Your task to perform on an android device: make emails show in primary in the gmail app Image 0: 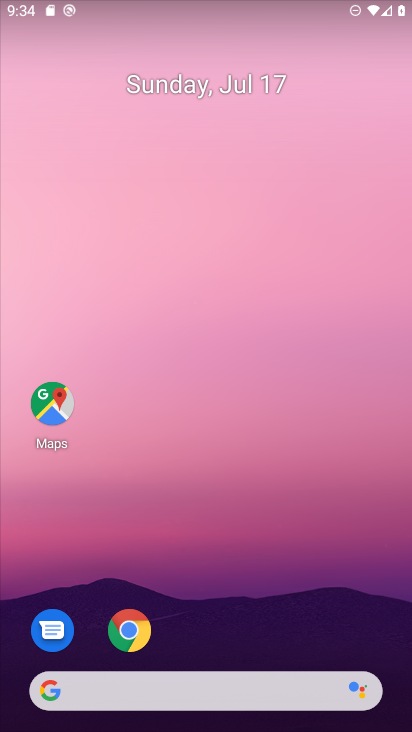
Step 0: drag from (194, 668) to (255, 7)
Your task to perform on an android device: make emails show in primary in the gmail app Image 1: 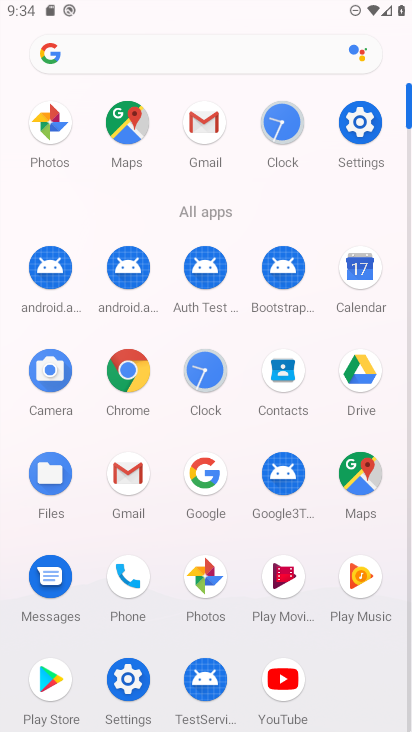
Step 1: click (118, 489)
Your task to perform on an android device: make emails show in primary in the gmail app Image 2: 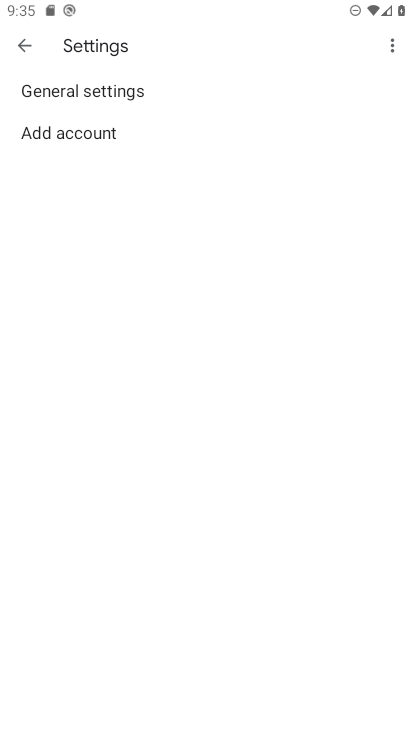
Step 2: click (43, 99)
Your task to perform on an android device: make emails show in primary in the gmail app Image 3: 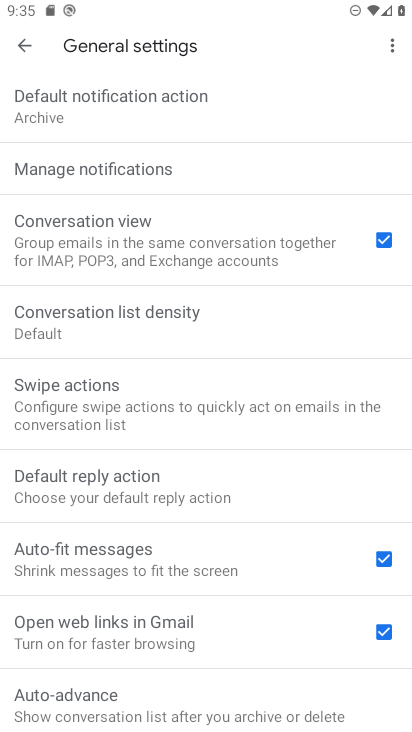
Step 3: click (162, 170)
Your task to perform on an android device: make emails show in primary in the gmail app Image 4: 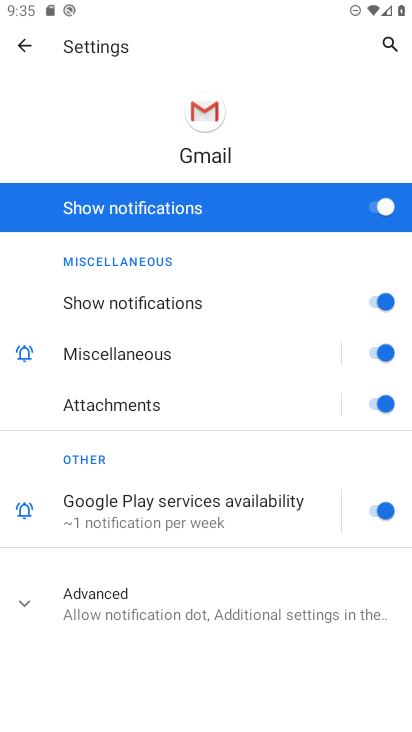
Step 4: click (24, 50)
Your task to perform on an android device: make emails show in primary in the gmail app Image 5: 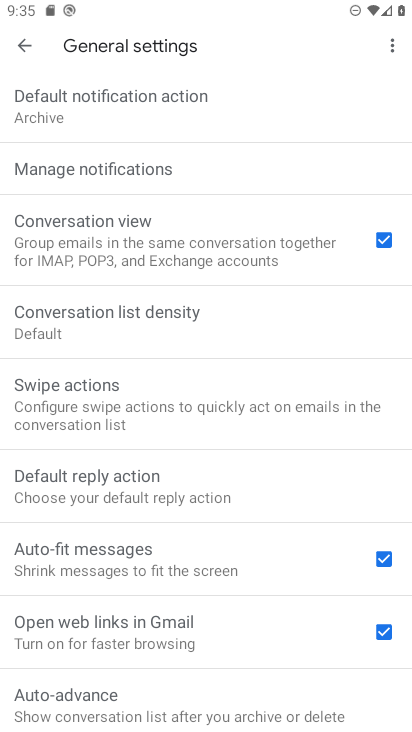
Step 5: click (11, 43)
Your task to perform on an android device: make emails show in primary in the gmail app Image 6: 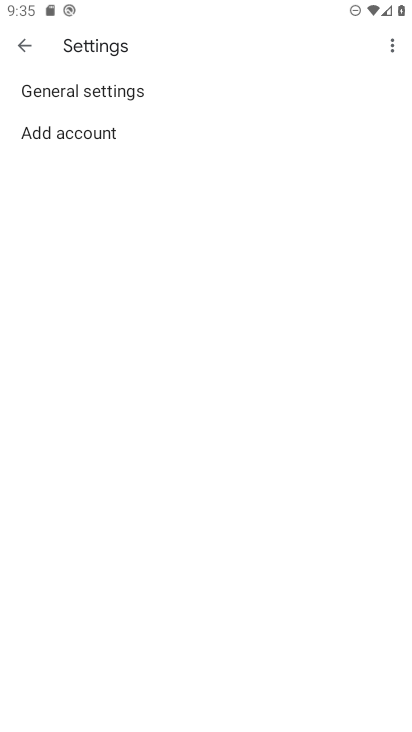
Step 6: click (18, 62)
Your task to perform on an android device: make emails show in primary in the gmail app Image 7: 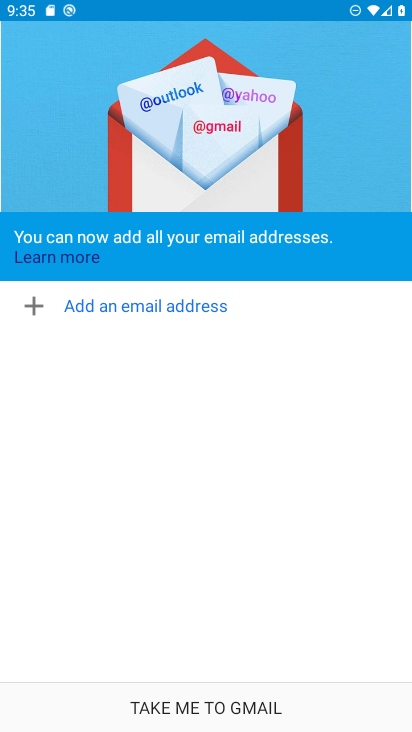
Step 7: task complete